Your task to perform on an android device: check battery use Image 0: 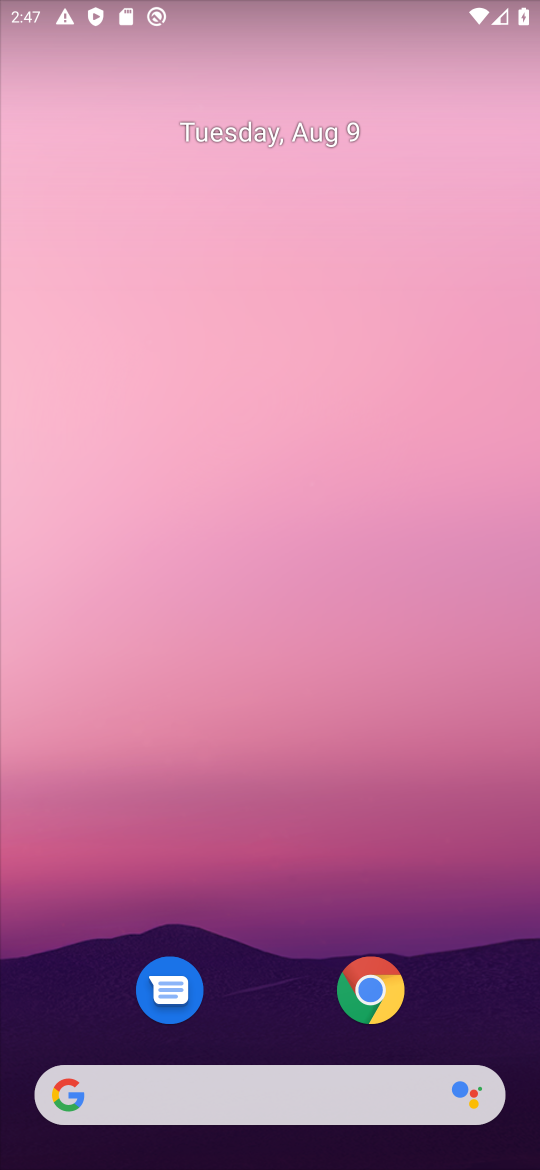
Step 0: drag from (240, 1105) to (270, 298)
Your task to perform on an android device: check battery use Image 1: 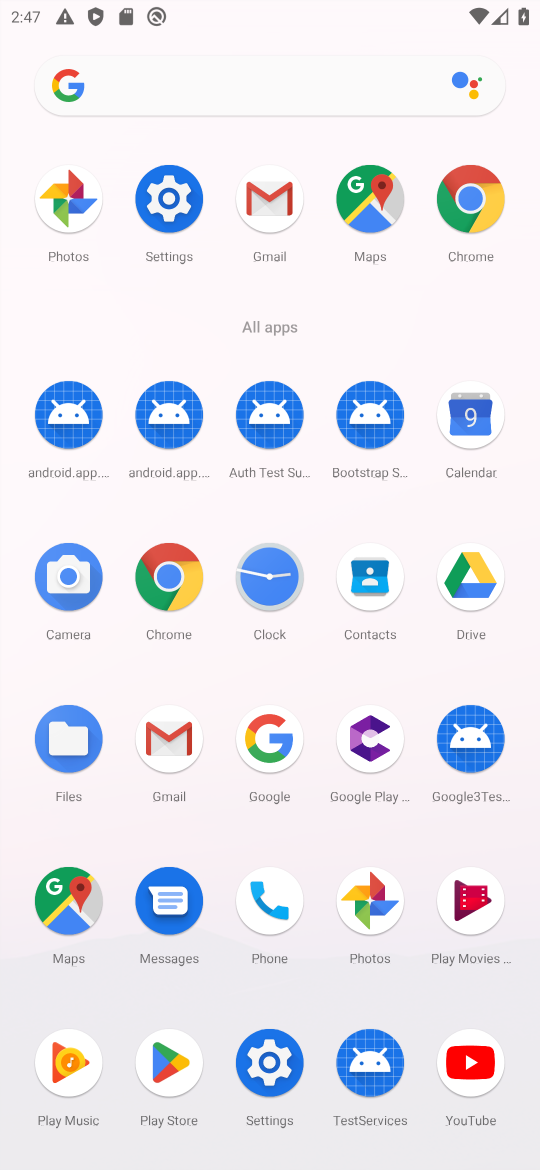
Step 1: click (152, 206)
Your task to perform on an android device: check battery use Image 2: 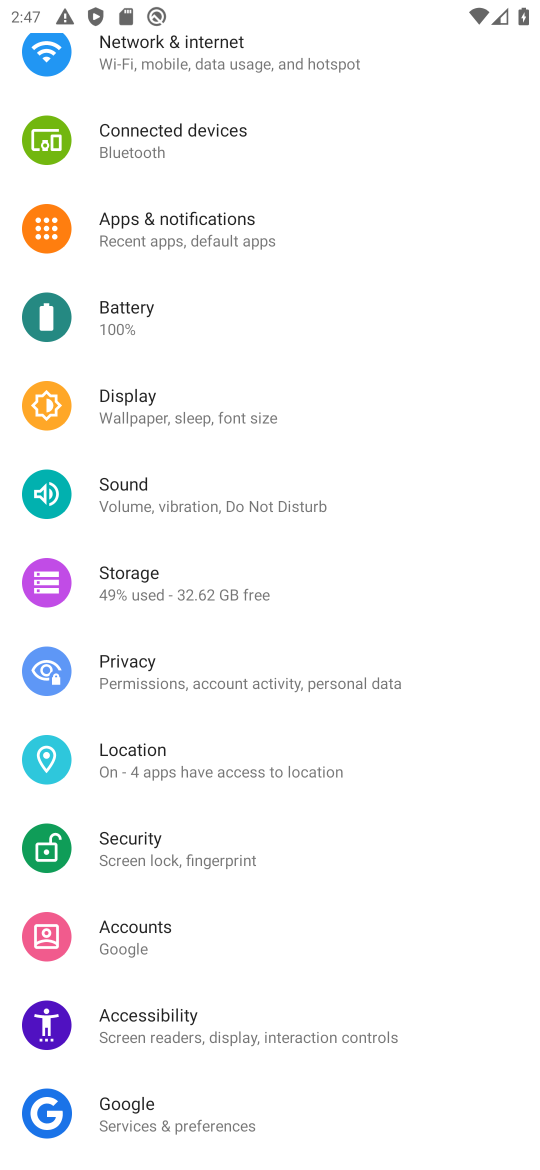
Step 2: click (171, 319)
Your task to perform on an android device: check battery use Image 3: 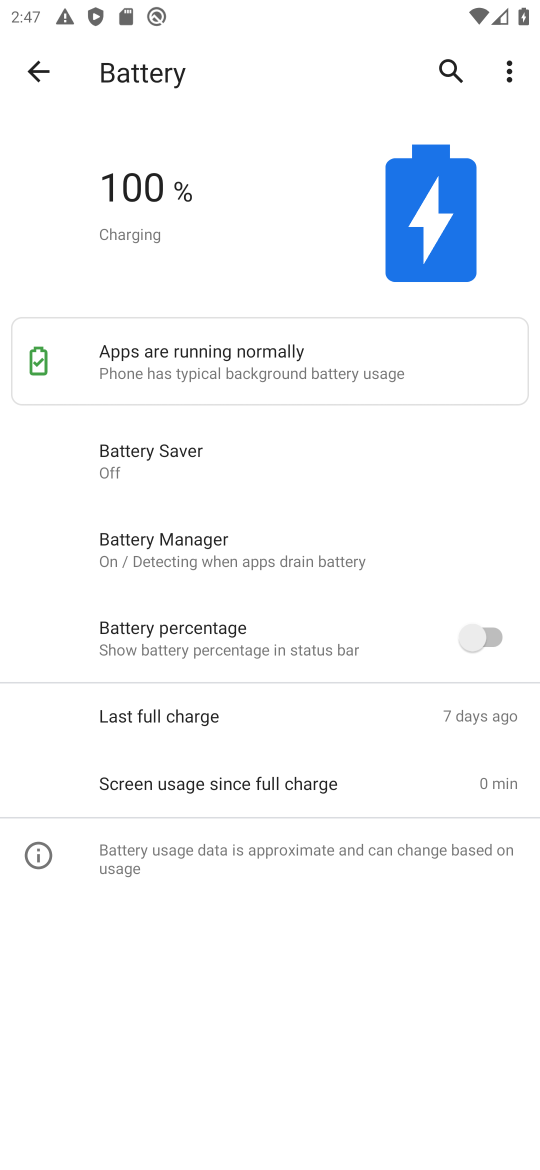
Step 3: task complete